Your task to perform on an android device: toggle show notifications on the lock screen Image 0: 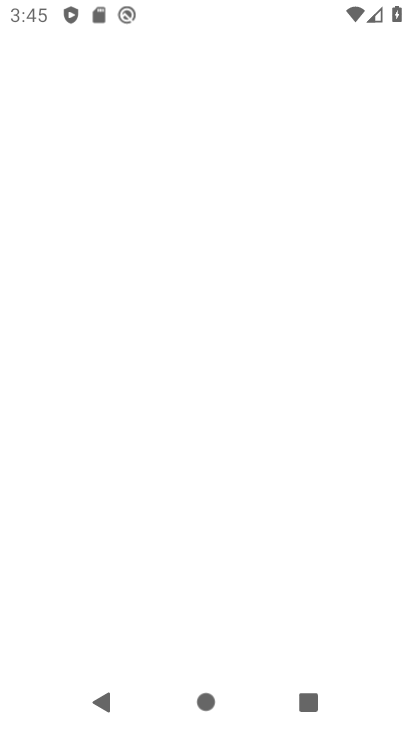
Step 0: press home button
Your task to perform on an android device: toggle show notifications on the lock screen Image 1: 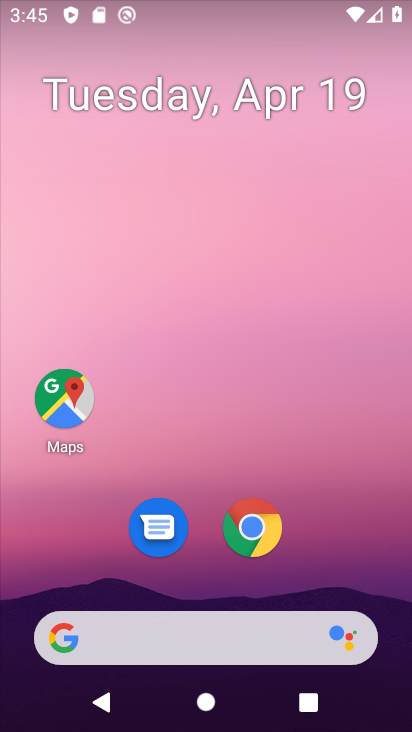
Step 1: drag from (383, 585) to (314, 195)
Your task to perform on an android device: toggle show notifications on the lock screen Image 2: 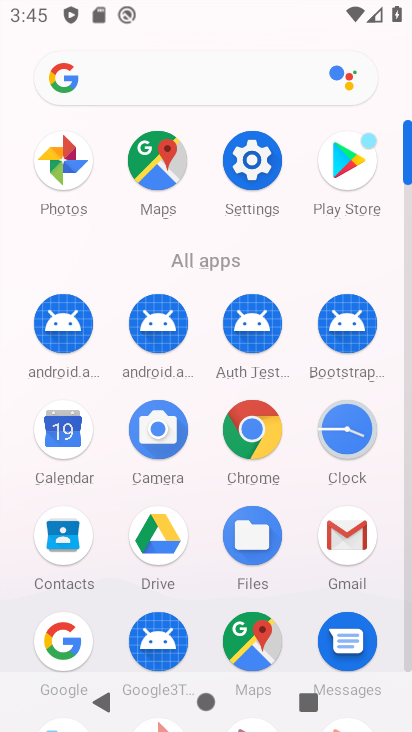
Step 2: click (406, 661)
Your task to perform on an android device: toggle show notifications on the lock screen Image 3: 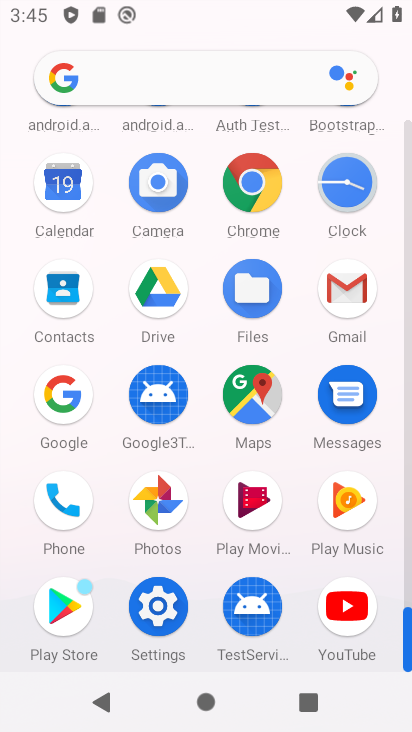
Step 3: click (160, 604)
Your task to perform on an android device: toggle show notifications on the lock screen Image 4: 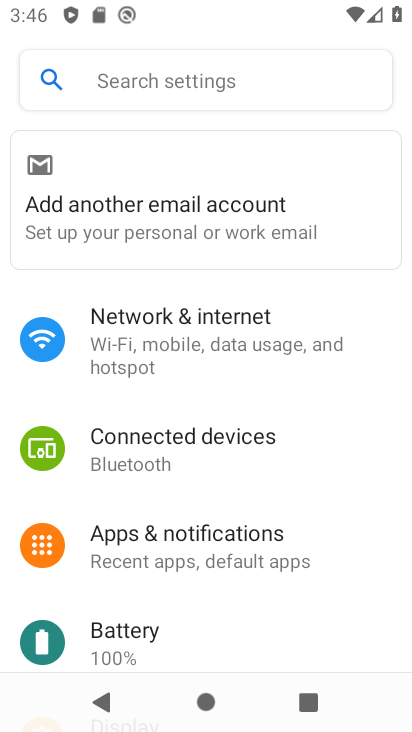
Step 4: click (135, 546)
Your task to perform on an android device: toggle show notifications on the lock screen Image 5: 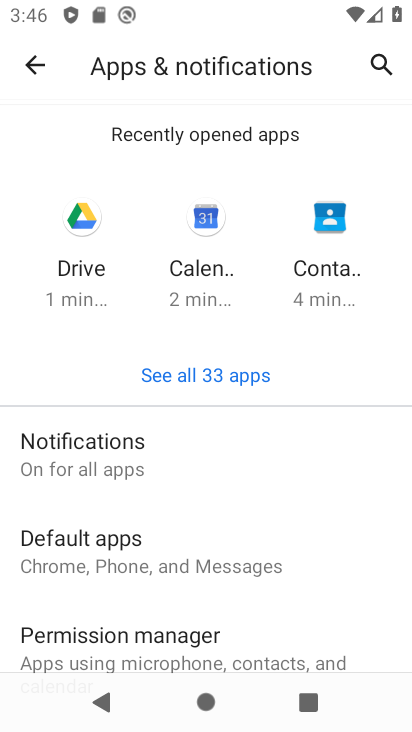
Step 5: click (81, 454)
Your task to perform on an android device: toggle show notifications on the lock screen Image 6: 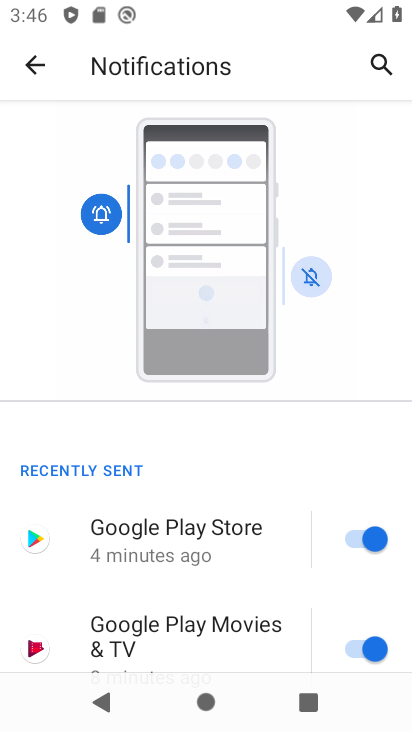
Step 6: drag from (301, 556) to (254, 214)
Your task to perform on an android device: toggle show notifications on the lock screen Image 7: 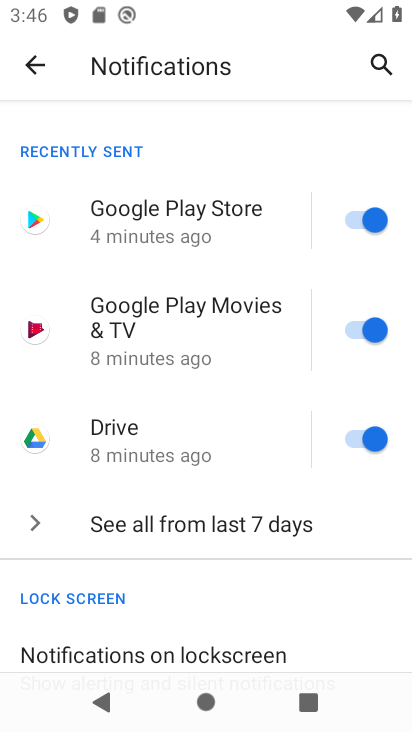
Step 7: drag from (295, 585) to (256, 193)
Your task to perform on an android device: toggle show notifications on the lock screen Image 8: 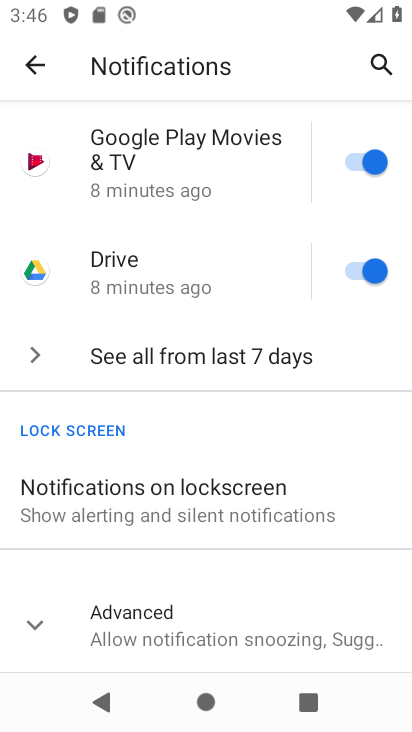
Step 8: click (145, 492)
Your task to perform on an android device: toggle show notifications on the lock screen Image 9: 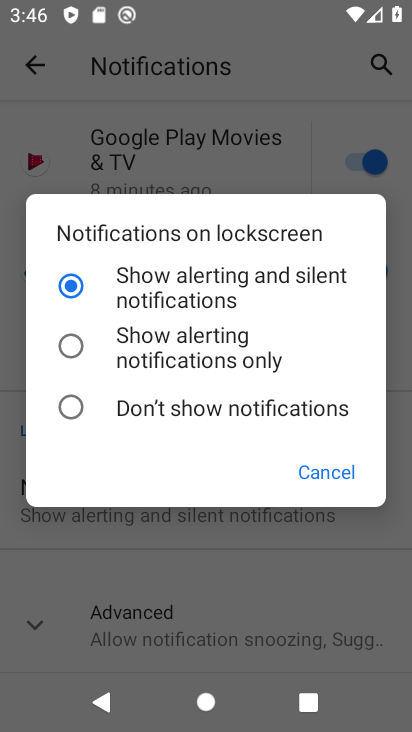
Step 9: click (75, 342)
Your task to perform on an android device: toggle show notifications on the lock screen Image 10: 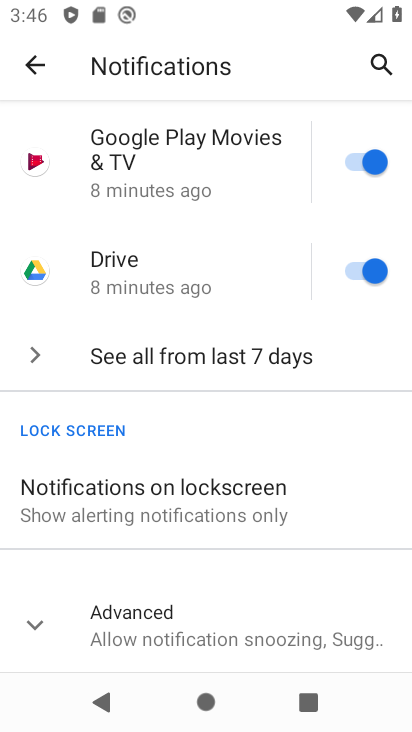
Step 10: task complete